Your task to perform on an android device: turn off picture-in-picture Image 0: 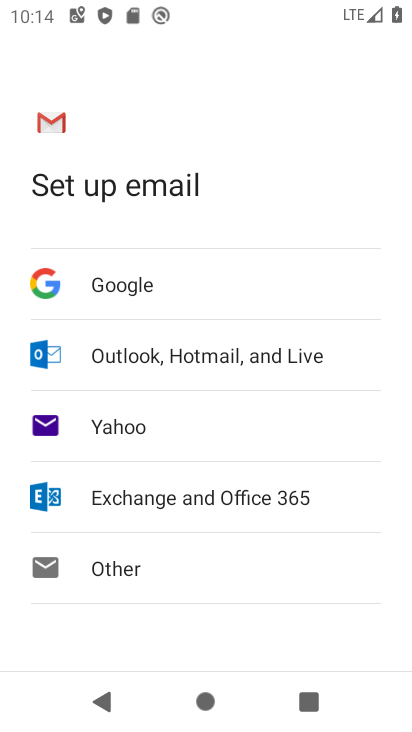
Step 0: press home button
Your task to perform on an android device: turn off picture-in-picture Image 1: 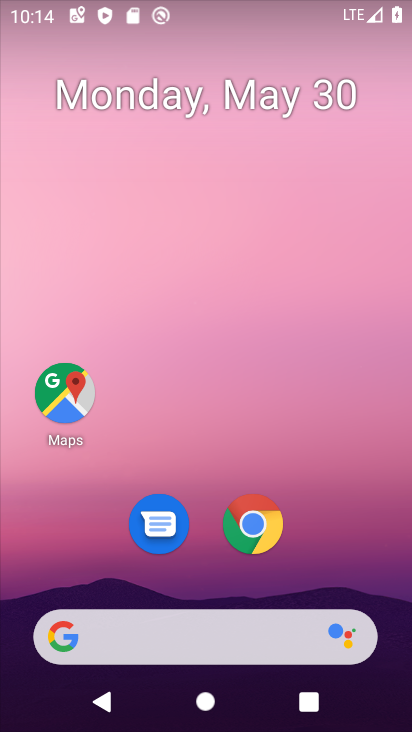
Step 1: click (258, 521)
Your task to perform on an android device: turn off picture-in-picture Image 2: 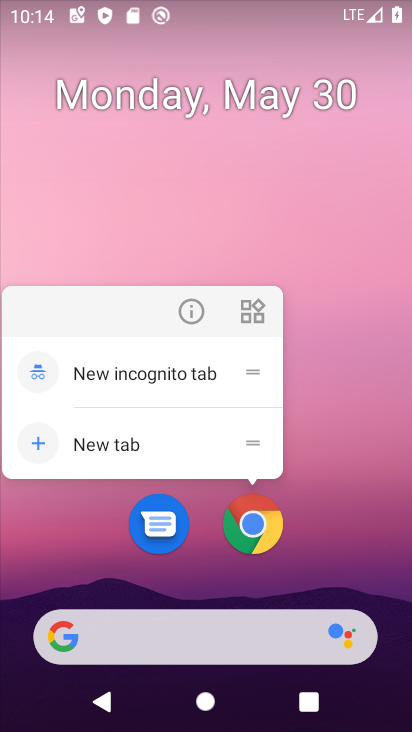
Step 2: click (185, 301)
Your task to perform on an android device: turn off picture-in-picture Image 3: 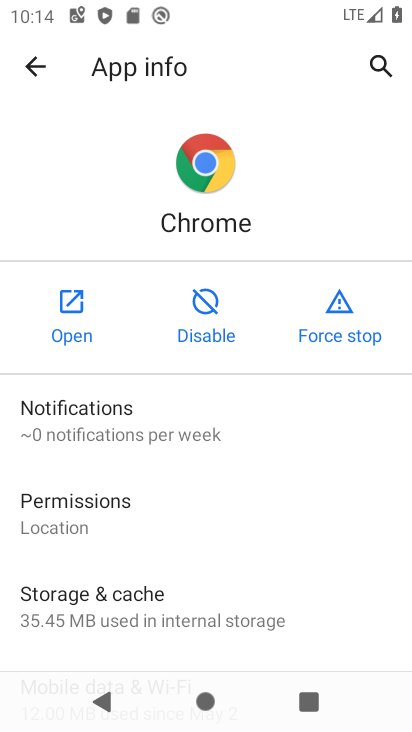
Step 3: drag from (229, 484) to (239, 141)
Your task to perform on an android device: turn off picture-in-picture Image 4: 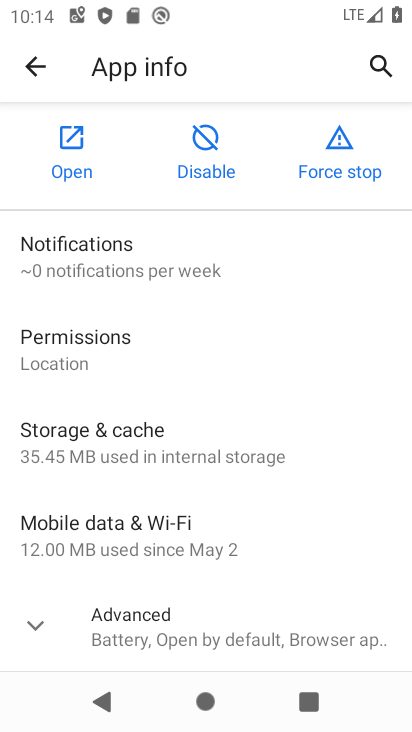
Step 4: click (39, 622)
Your task to perform on an android device: turn off picture-in-picture Image 5: 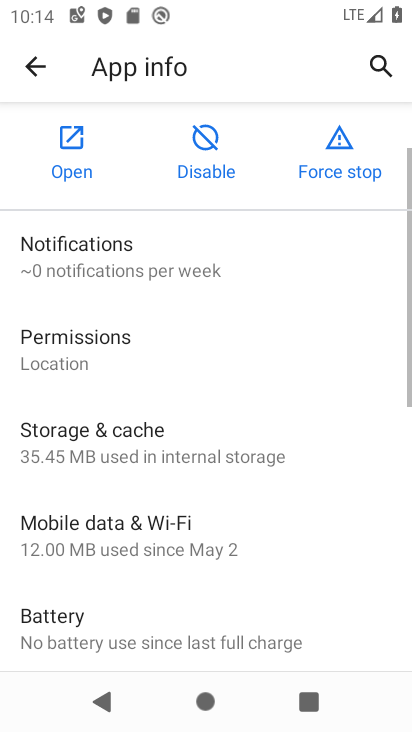
Step 5: drag from (231, 584) to (262, 26)
Your task to perform on an android device: turn off picture-in-picture Image 6: 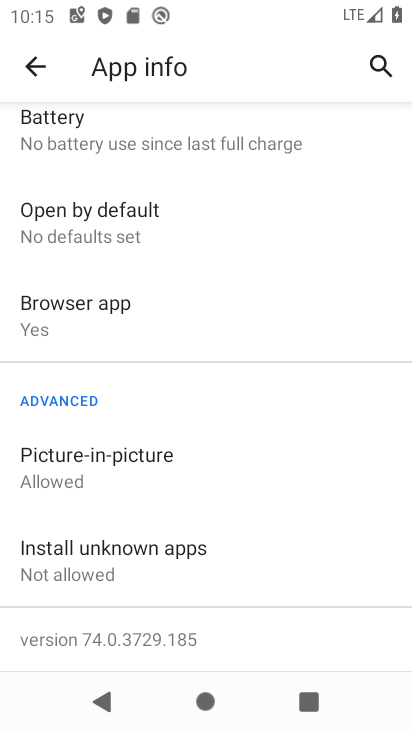
Step 6: click (154, 466)
Your task to perform on an android device: turn off picture-in-picture Image 7: 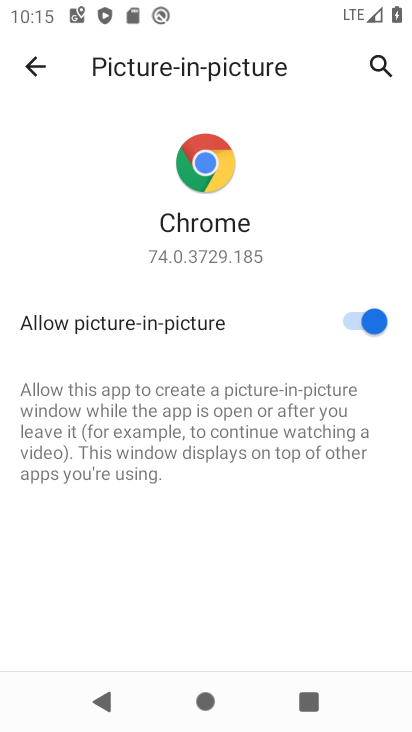
Step 7: click (368, 314)
Your task to perform on an android device: turn off picture-in-picture Image 8: 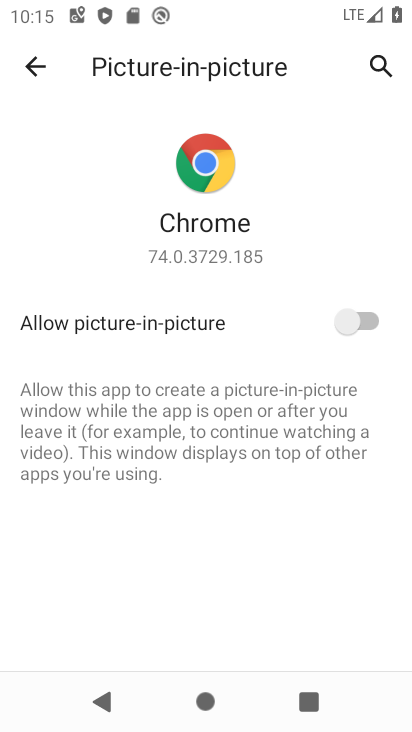
Step 8: task complete